Your task to perform on an android device: open app "Speedtest by Ookla" (install if not already installed) and go to login screen Image 0: 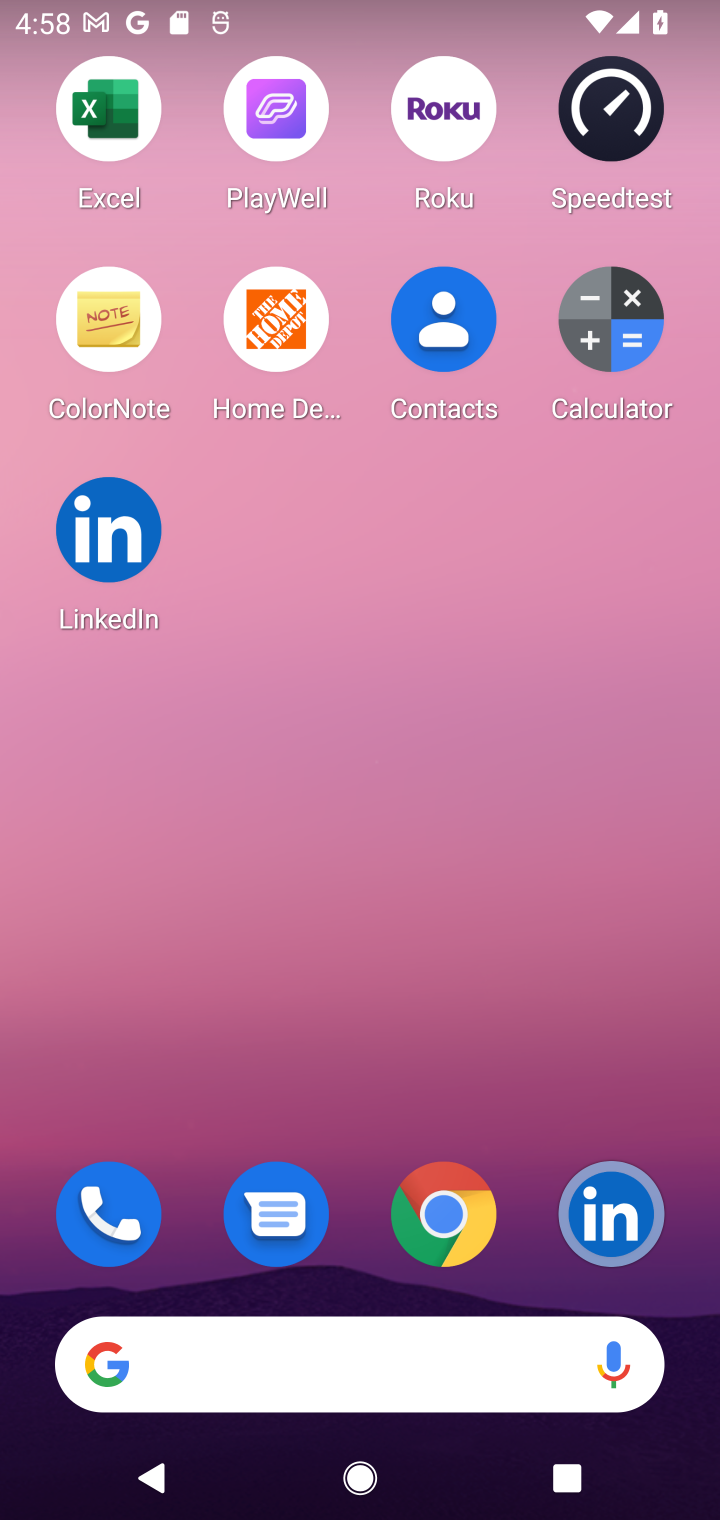
Step 0: click (603, 113)
Your task to perform on an android device: open app "Speedtest by Ookla" (install if not already installed) and go to login screen Image 1: 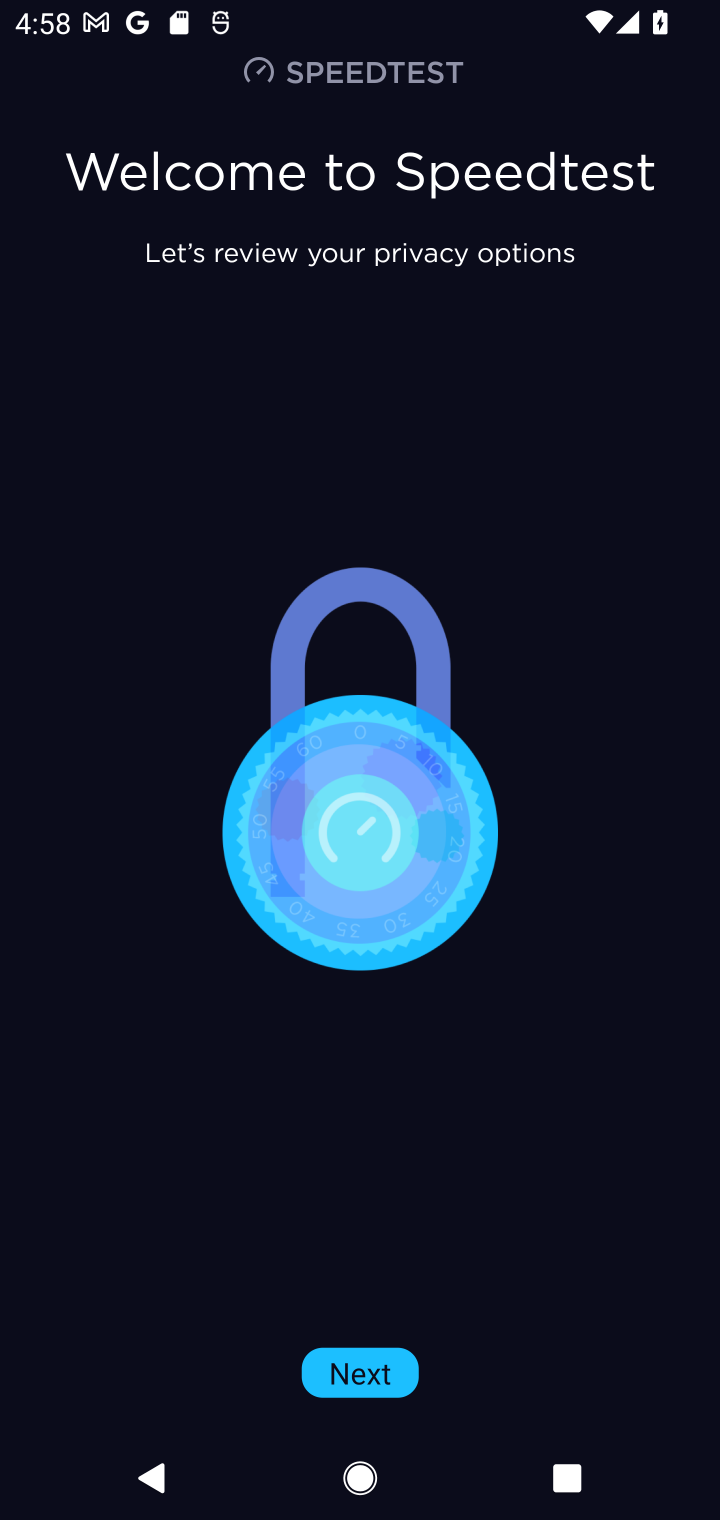
Step 1: click (361, 1381)
Your task to perform on an android device: open app "Speedtest by Ookla" (install if not already installed) and go to login screen Image 2: 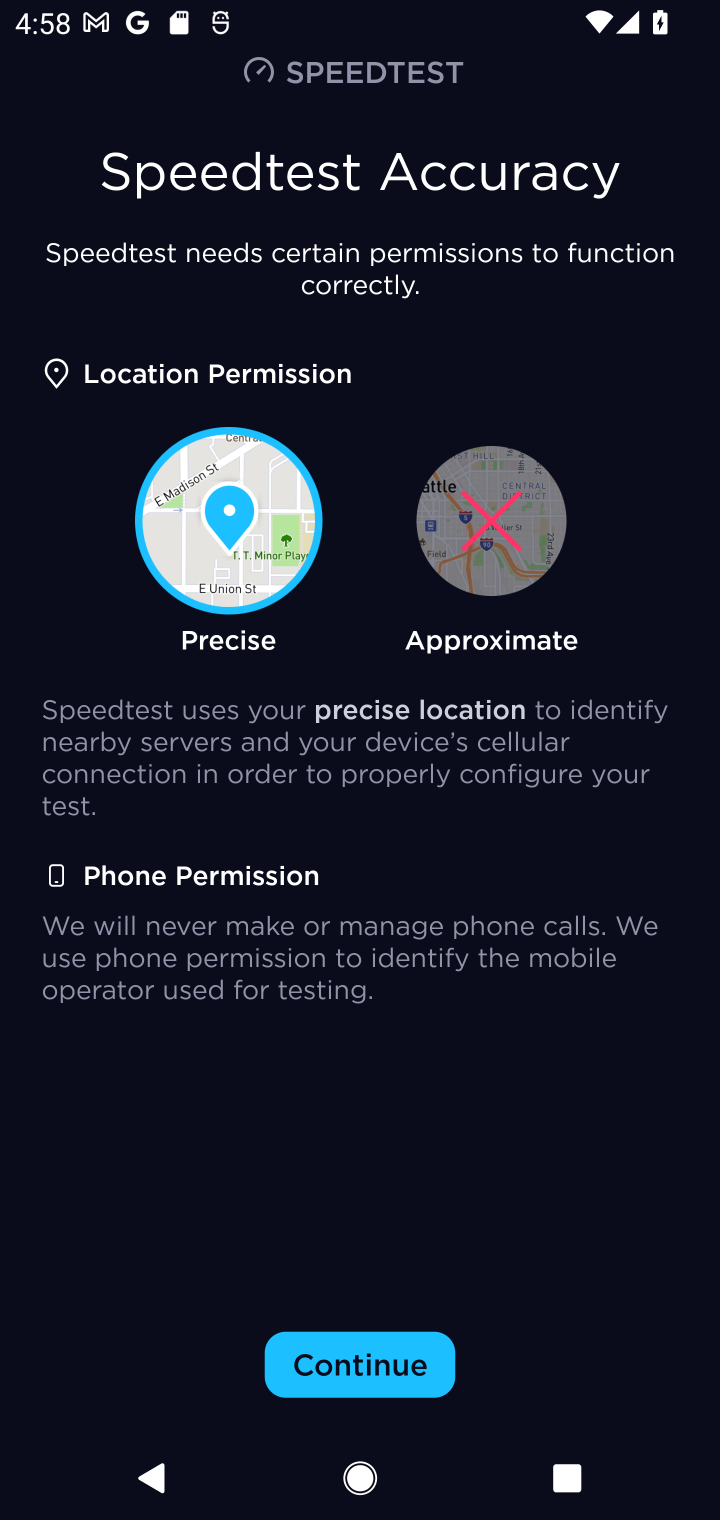
Step 2: click (351, 1360)
Your task to perform on an android device: open app "Speedtest by Ookla" (install if not already installed) and go to login screen Image 3: 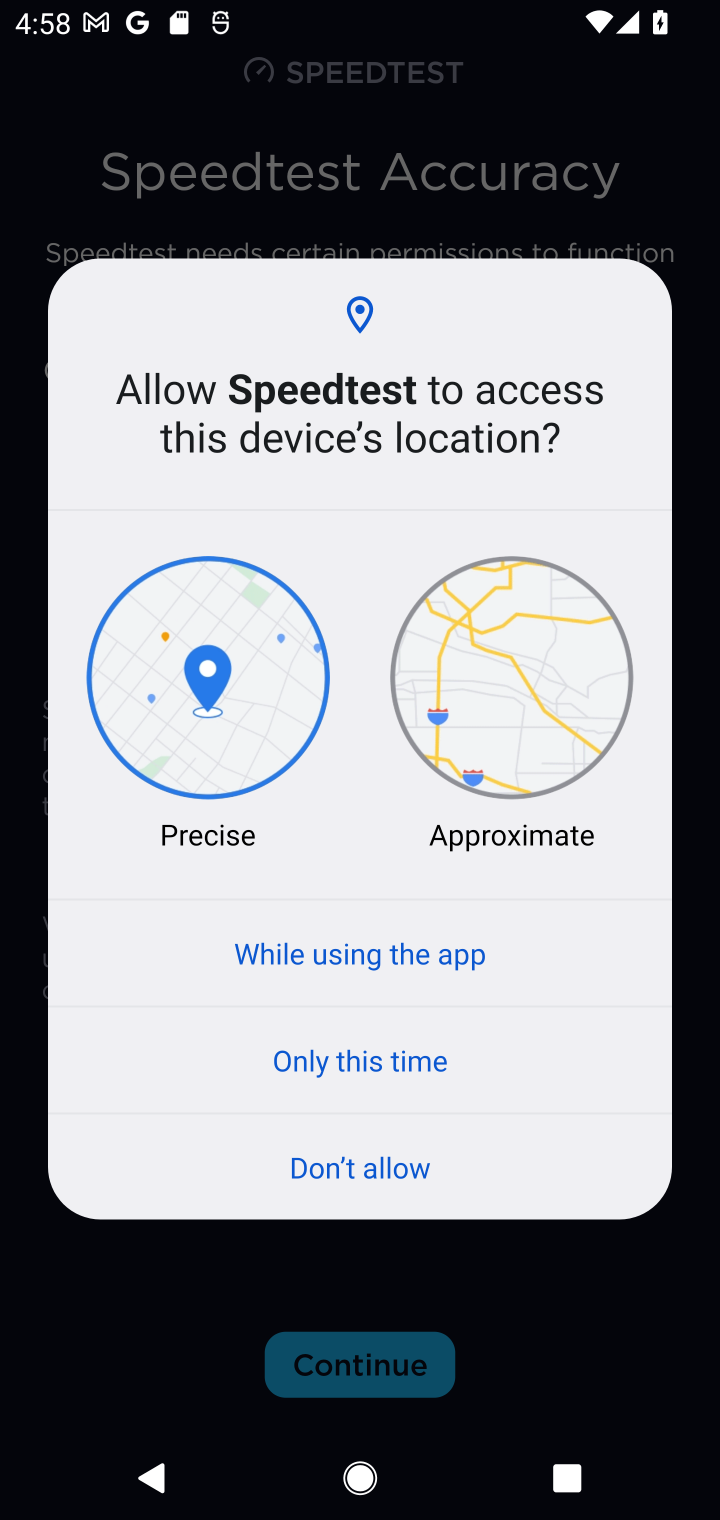
Step 3: click (357, 950)
Your task to perform on an android device: open app "Speedtest by Ookla" (install if not already installed) and go to login screen Image 4: 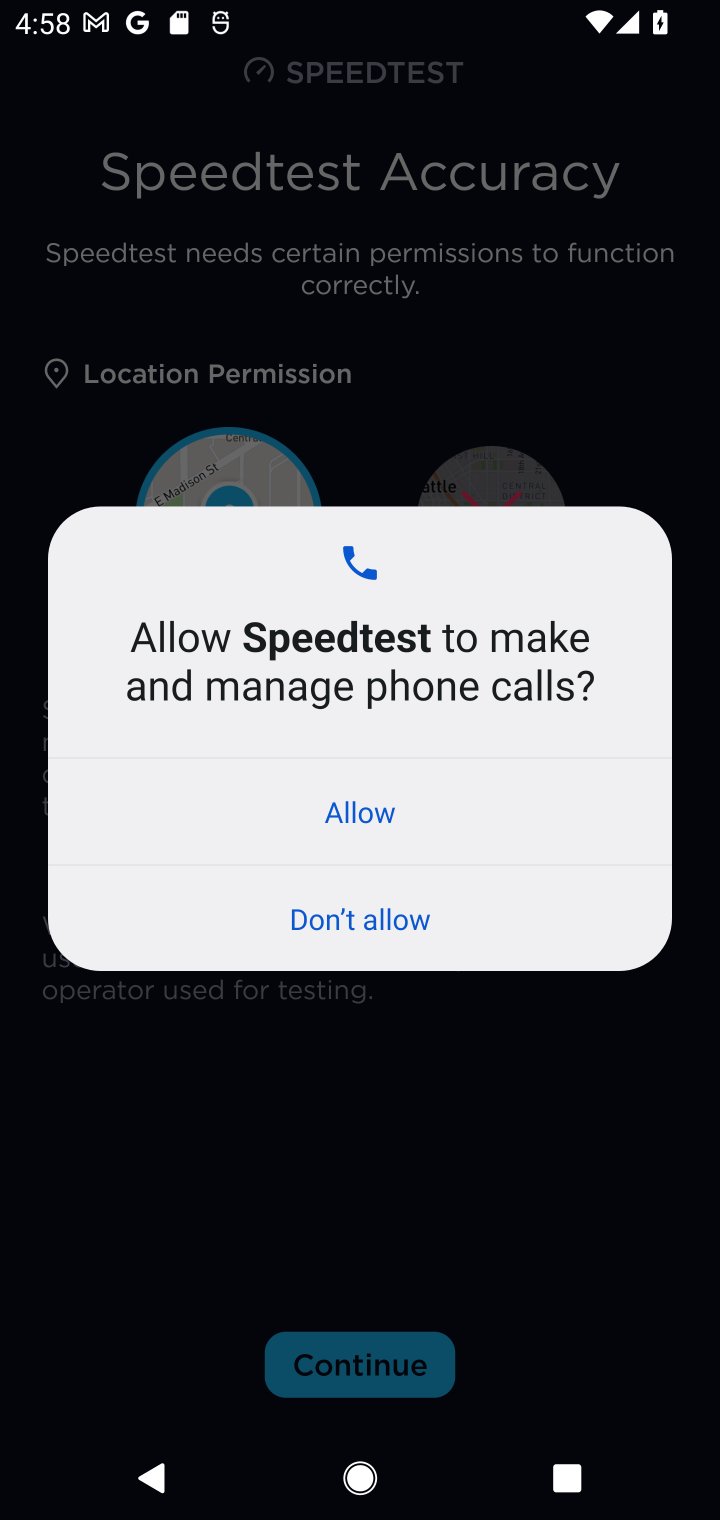
Step 4: click (365, 813)
Your task to perform on an android device: open app "Speedtest by Ookla" (install if not already installed) and go to login screen Image 5: 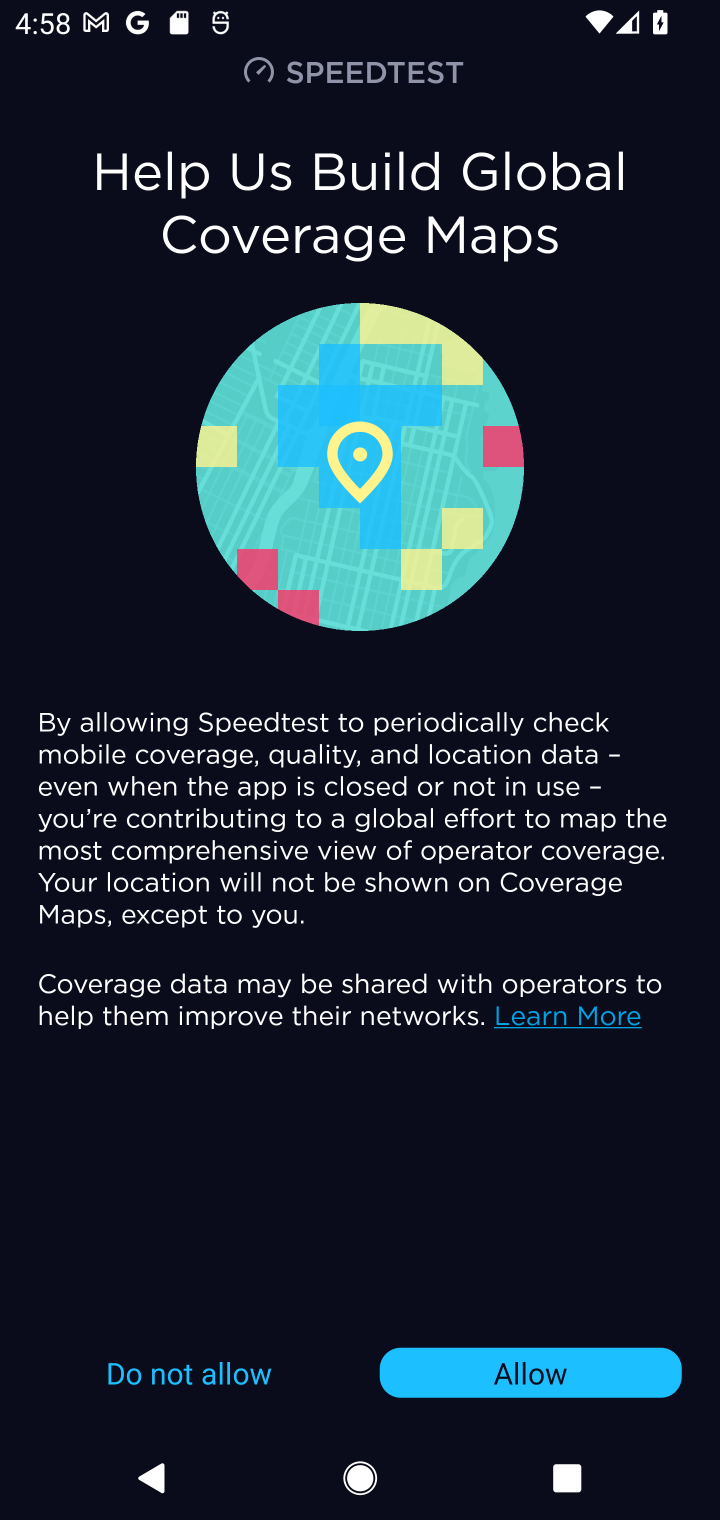
Step 5: click (533, 1372)
Your task to perform on an android device: open app "Speedtest by Ookla" (install if not already installed) and go to login screen Image 6: 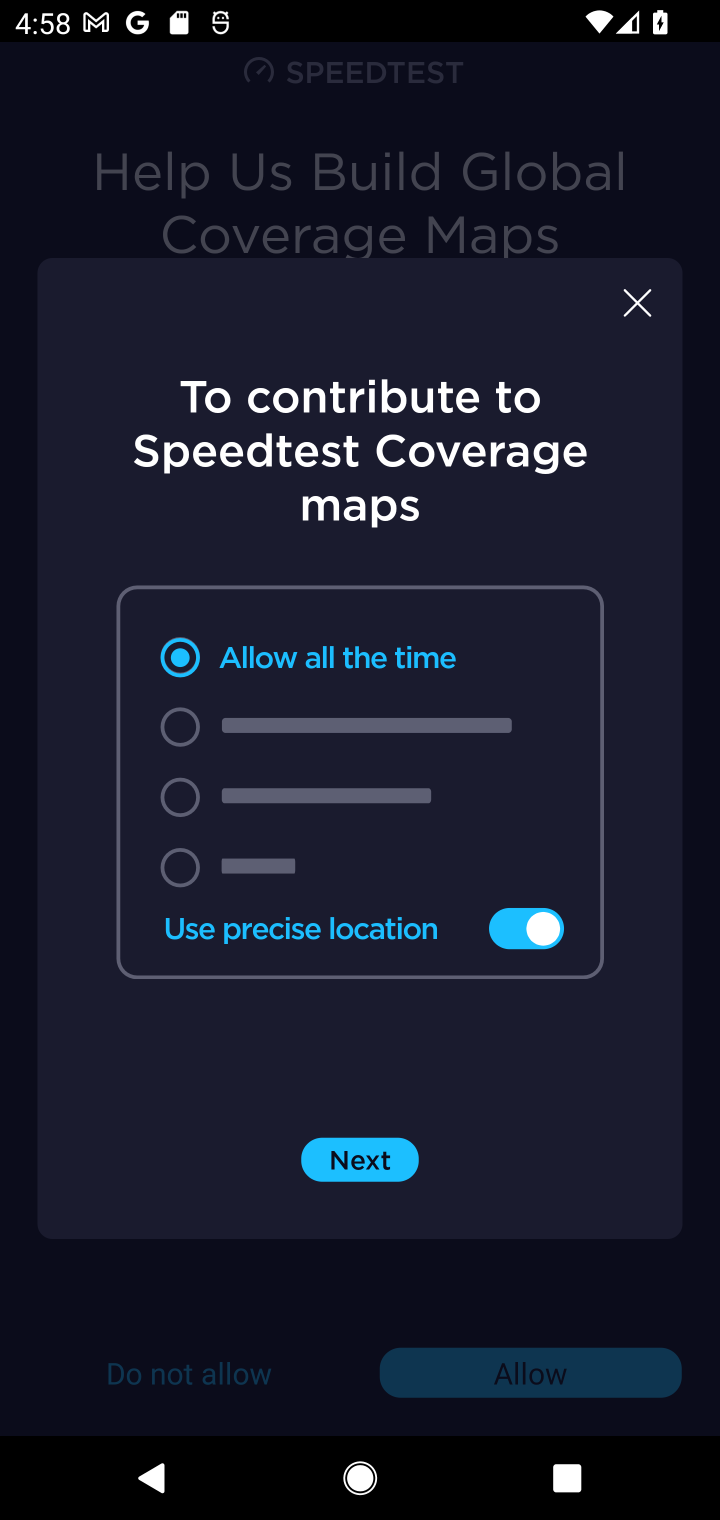
Step 6: click (628, 302)
Your task to perform on an android device: open app "Speedtest by Ookla" (install if not already installed) and go to login screen Image 7: 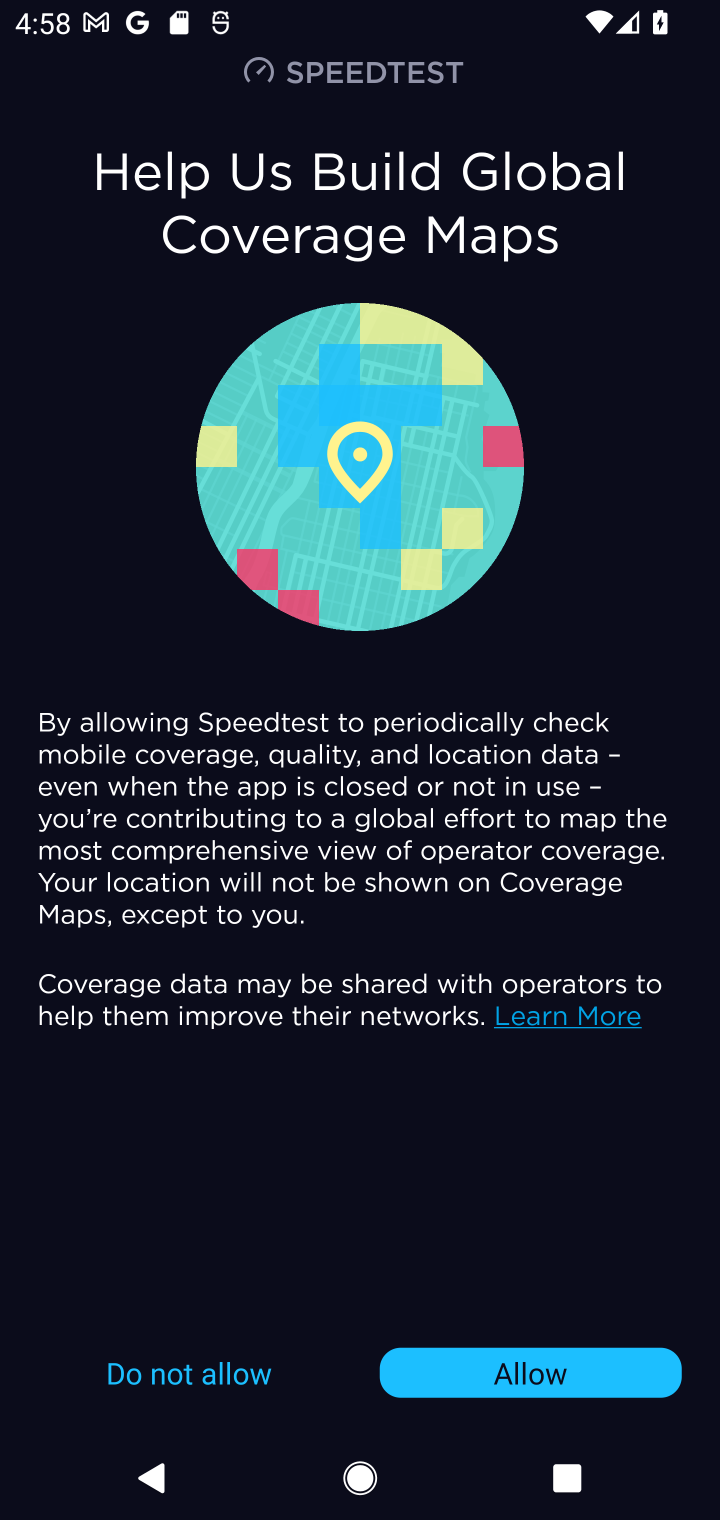
Step 7: click (165, 1376)
Your task to perform on an android device: open app "Speedtest by Ookla" (install if not already installed) and go to login screen Image 8: 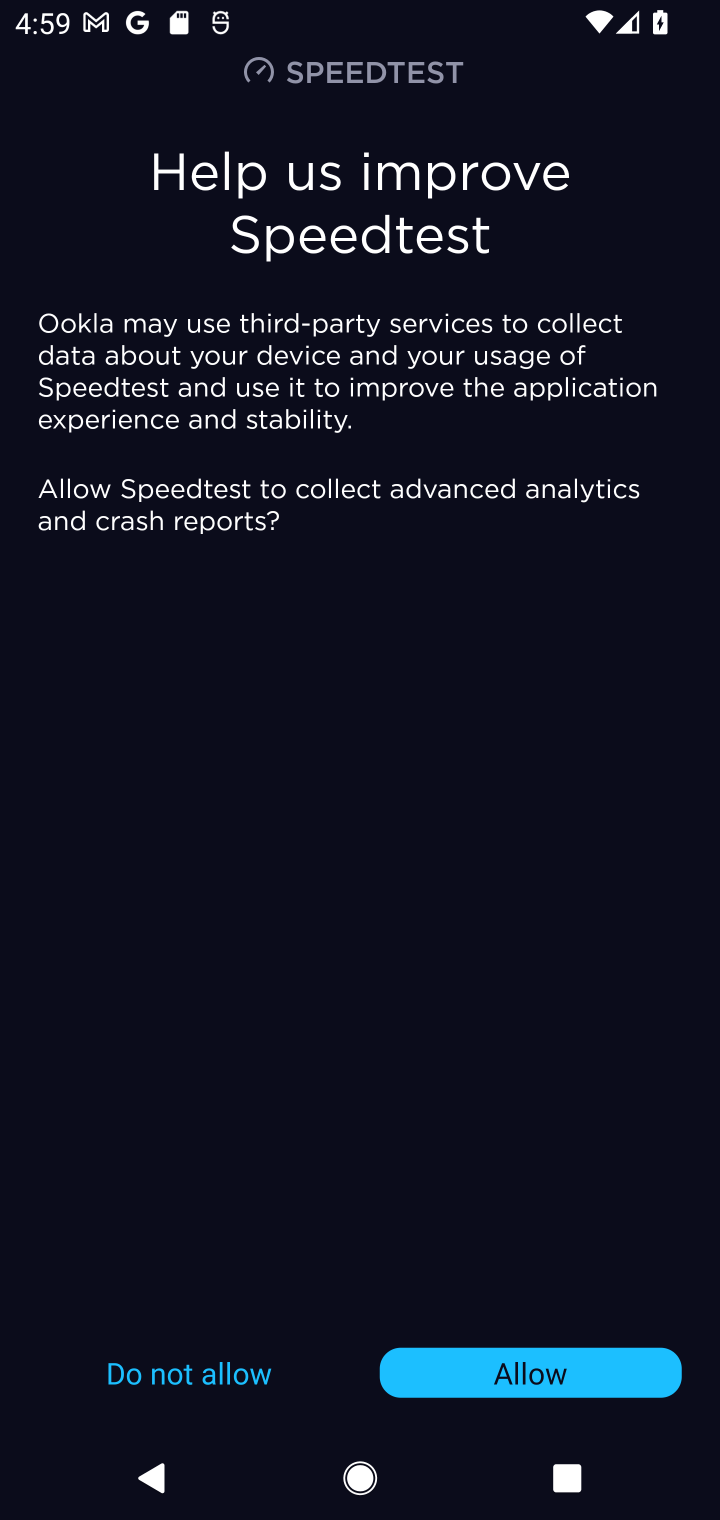
Step 8: task complete